Your task to perform on an android device: What's the weather going to be tomorrow? Image 0: 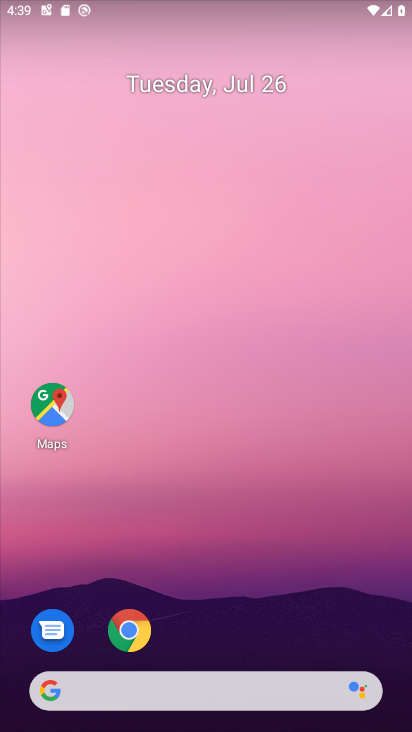
Step 0: drag from (255, 639) to (185, 121)
Your task to perform on an android device: What's the weather going to be tomorrow? Image 1: 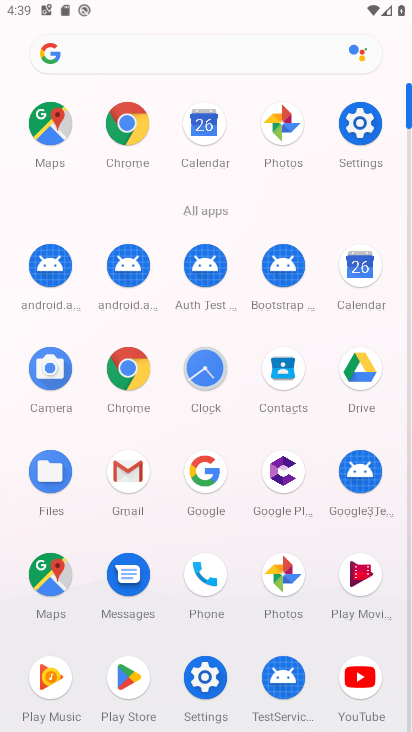
Step 1: click (130, 108)
Your task to perform on an android device: What's the weather going to be tomorrow? Image 2: 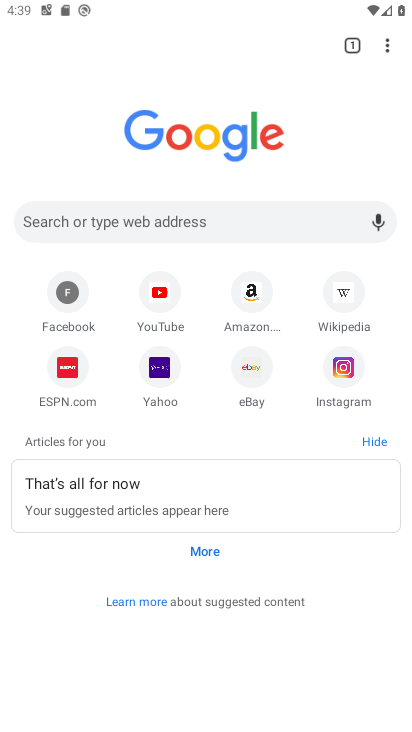
Step 2: click (246, 225)
Your task to perform on an android device: What's the weather going to be tomorrow? Image 3: 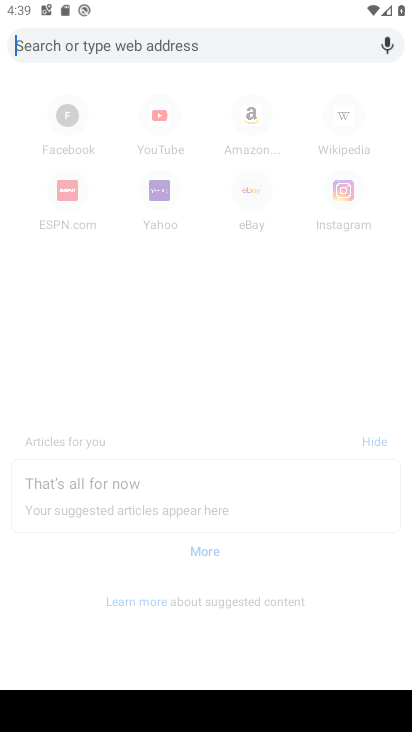
Step 3: type "What's the weather going to be tomorrow?"
Your task to perform on an android device: What's the weather going to be tomorrow? Image 4: 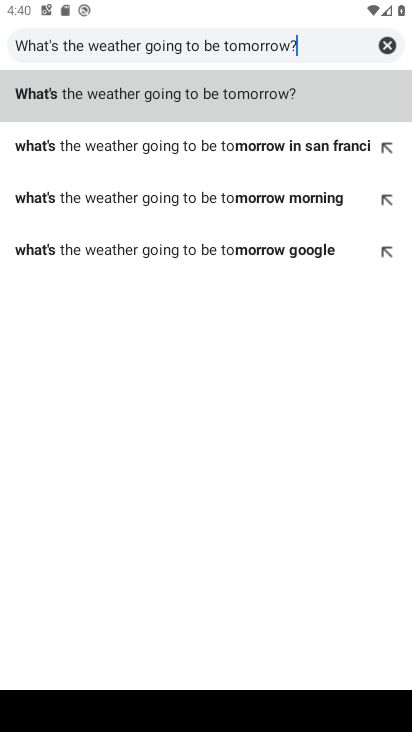
Step 4: click (286, 86)
Your task to perform on an android device: What's the weather going to be tomorrow? Image 5: 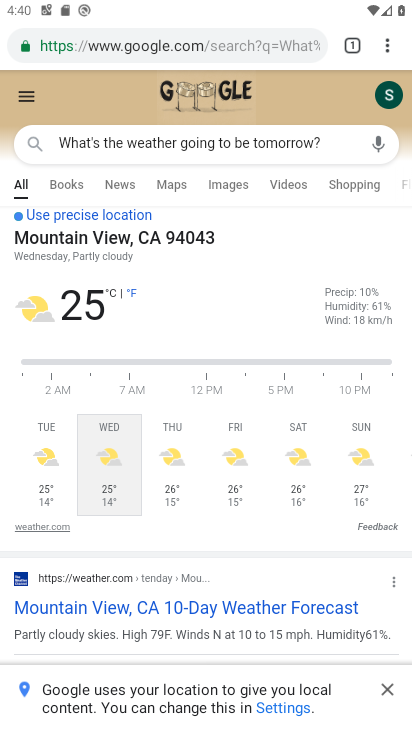
Step 5: task complete